Your task to perform on an android device: Search for vegetarian restaurants on Maps Image 0: 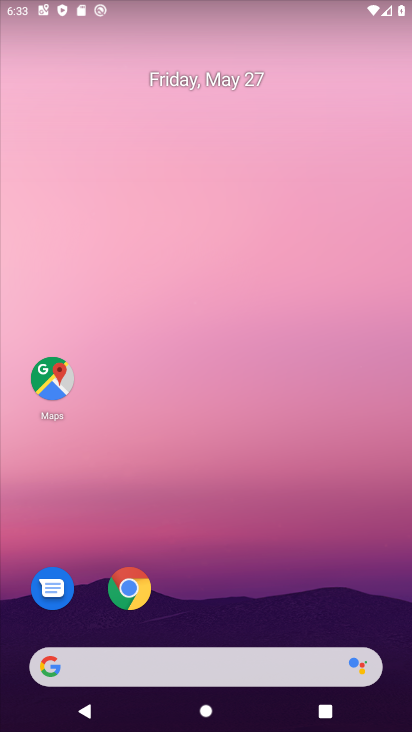
Step 0: drag from (384, 593) to (320, 167)
Your task to perform on an android device: Search for vegetarian restaurants on Maps Image 1: 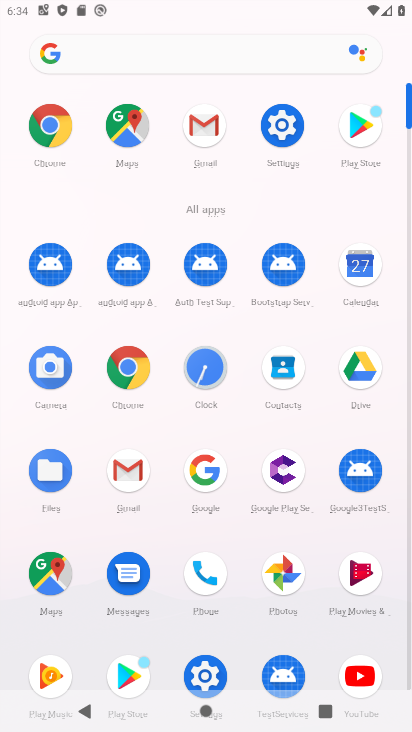
Step 1: click (137, 122)
Your task to perform on an android device: Search for vegetarian restaurants on Maps Image 2: 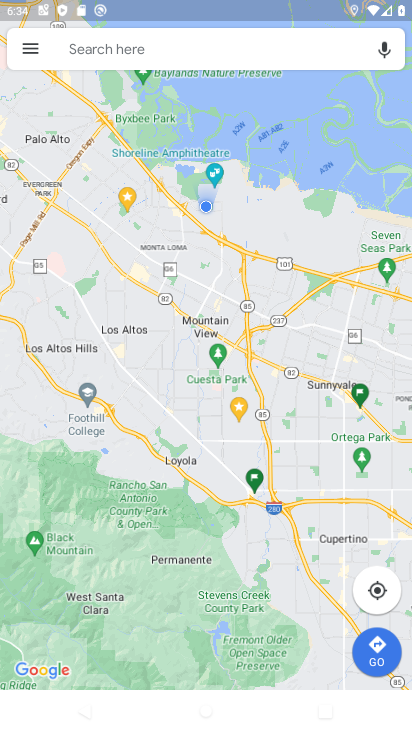
Step 2: click (100, 49)
Your task to perform on an android device: Search for vegetarian restaurants on Maps Image 3: 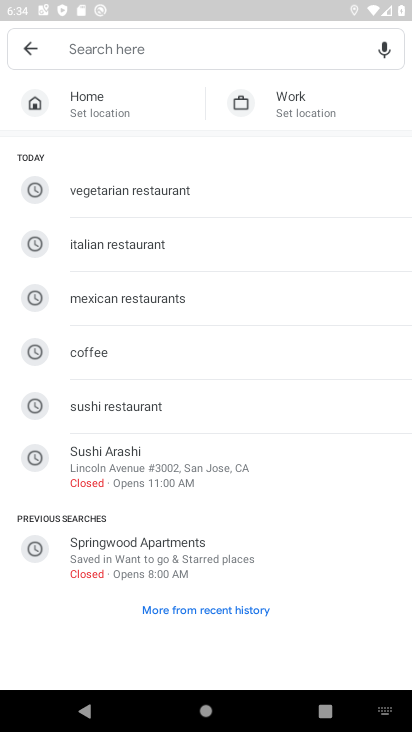
Step 3: type " vegetarian restaurants"
Your task to perform on an android device: Search for vegetarian restaurants on Maps Image 4: 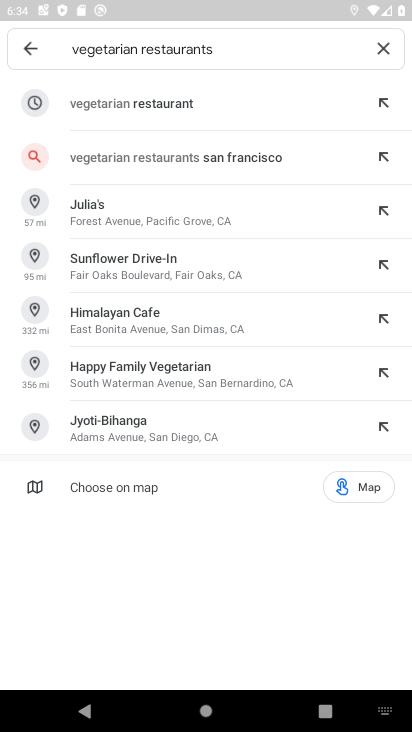
Step 4: click (169, 85)
Your task to perform on an android device: Search for vegetarian restaurants on Maps Image 5: 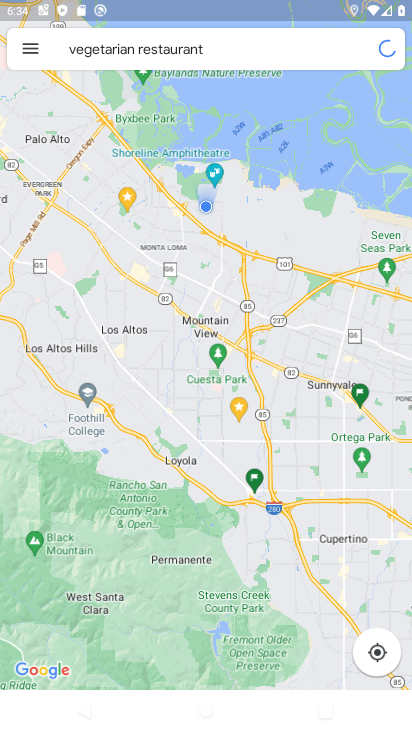
Step 5: click (226, 91)
Your task to perform on an android device: Search for vegetarian restaurants on Maps Image 6: 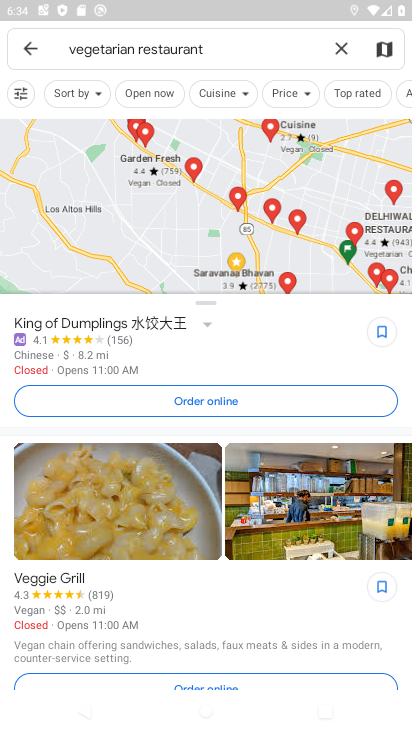
Step 6: task complete